Your task to perform on an android device: set the timer Image 0: 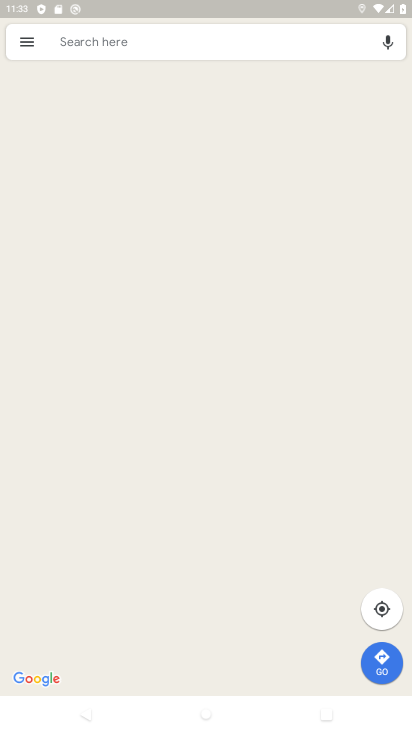
Step 0: press home button
Your task to perform on an android device: set the timer Image 1: 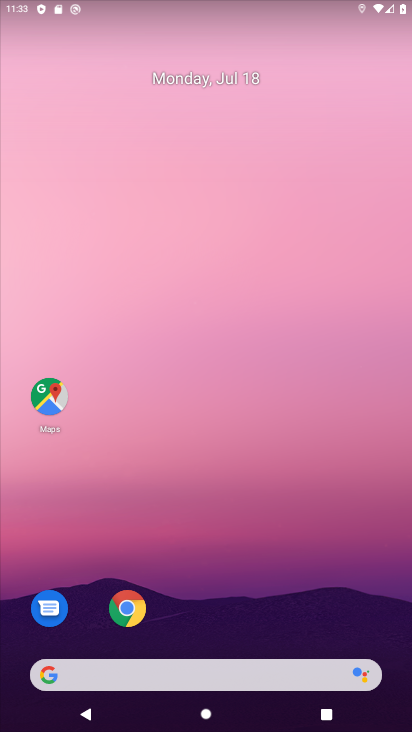
Step 1: drag from (236, 688) to (272, 15)
Your task to perform on an android device: set the timer Image 2: 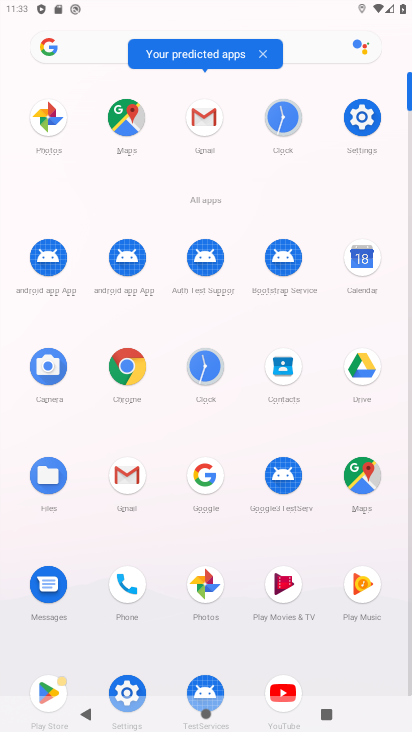
Step 2: click (191, 364)
Your task to perform on an android device: set the timer Image 3: 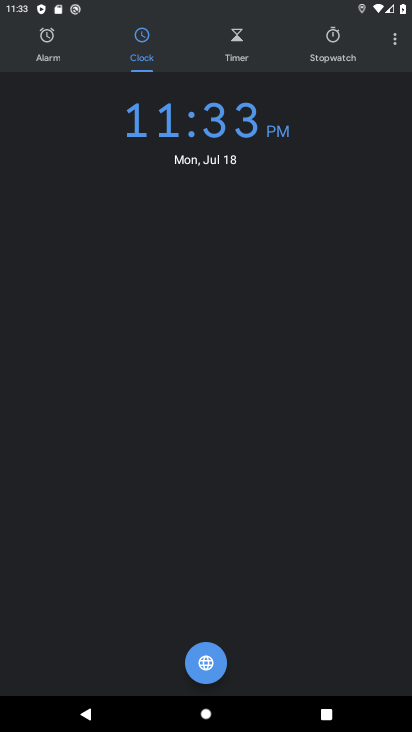
Step 3: click (255, 53)
Your task to perform on an android device: set the timer Image 4: 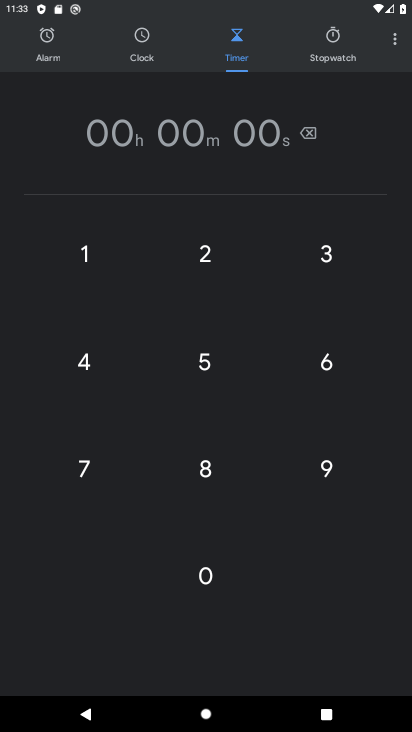
Step 4: click (325, 466)
Your task to perform on an android device: set the timer Image 5: 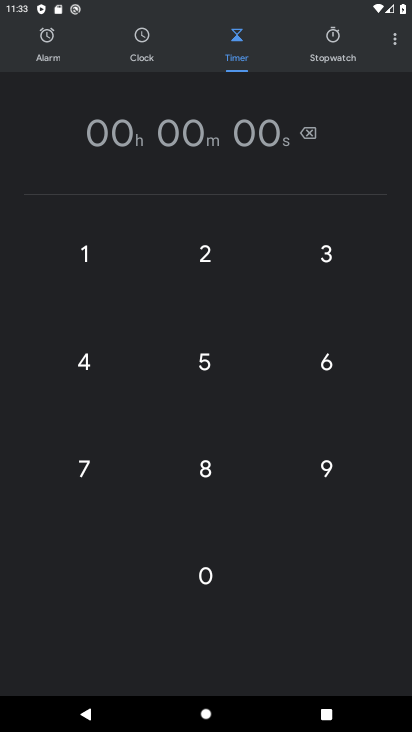
Step 5: click (325, 466)
Your task to perform on an android device: set the timer Image 6: 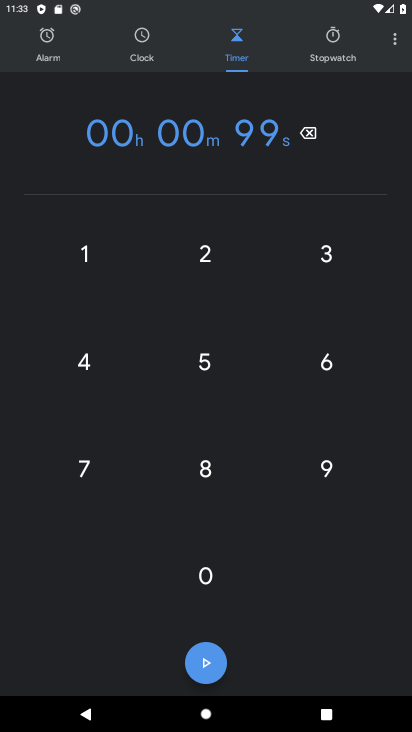
Step 6: click (325, 466)
Your task to perform on an android device: set the timer Image 7: 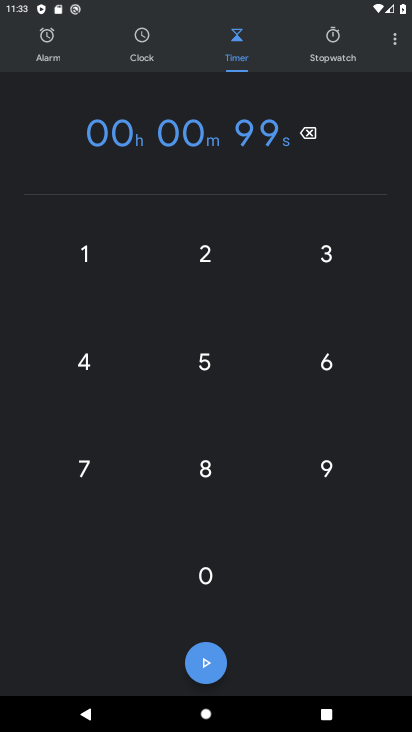
Step 7: click (325, 466)
Your task to perform on an android device: set the timer Image 8: 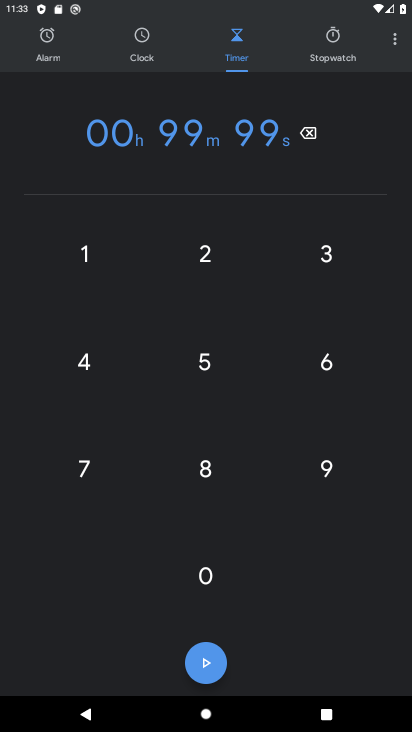
Step 8: click (325, 466)
Your task to perform on an android device: set the timer Image 9: 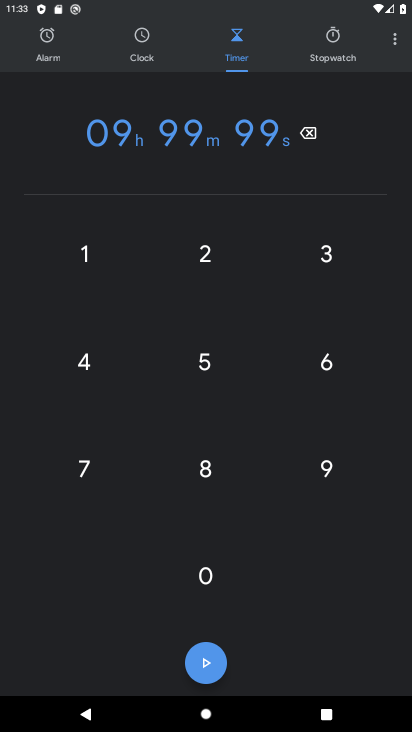
Step 9: click (325, 464)
Your task to perform on an android device: set the timer Image 10: 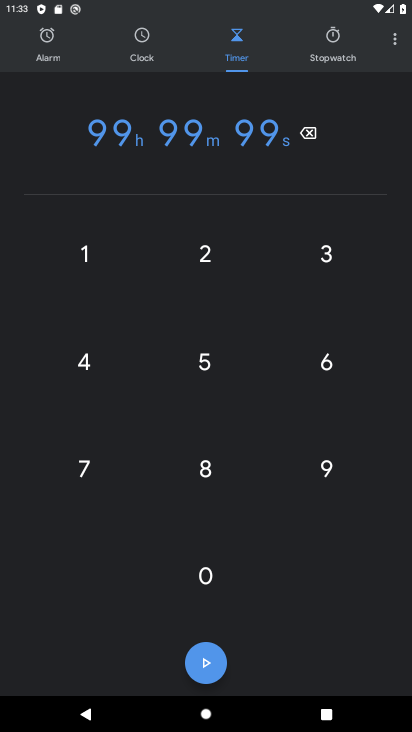
Step 10: click (205, 648)
Your task to perform on an android device: set the timer Image 11: 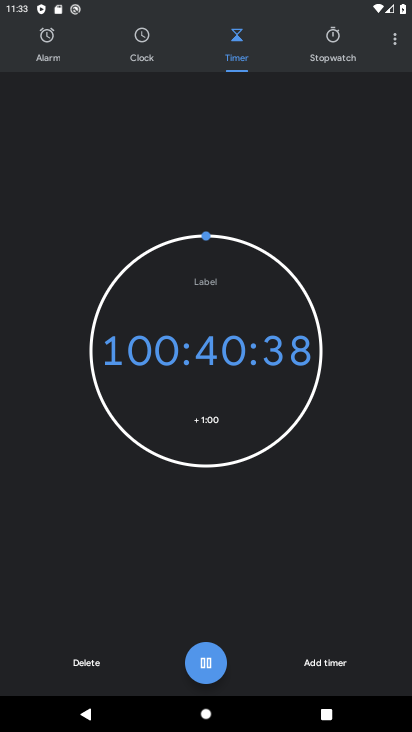
Step 11: task complete